Your task to perform on an android device: Open Maps and search for coffee Image 0: 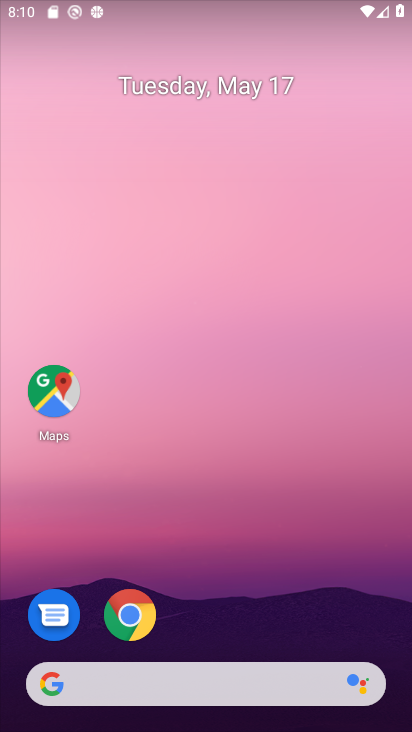
Step 0: click (49, 398)
Your task to perform on an android device: Open Maps and search for coffee Image 1: 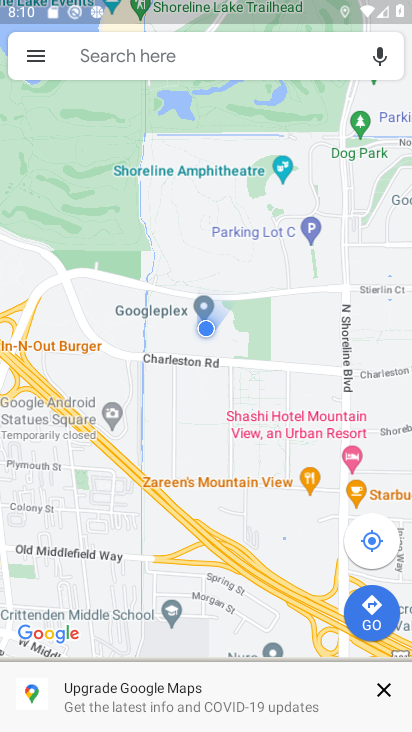
Step 1: click (179, 63)
Your task to perform on an android device: Open Maps and search for coffee Image 2: 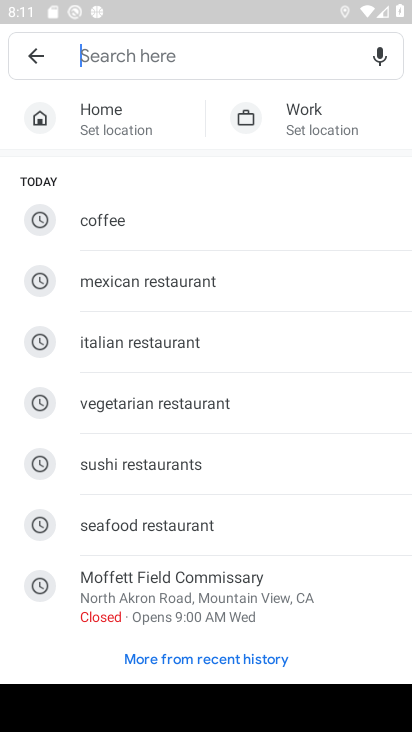
Step 2: click (157, 227)
Your task to perform on an android device: Open Maps and search for coffee Image 3: 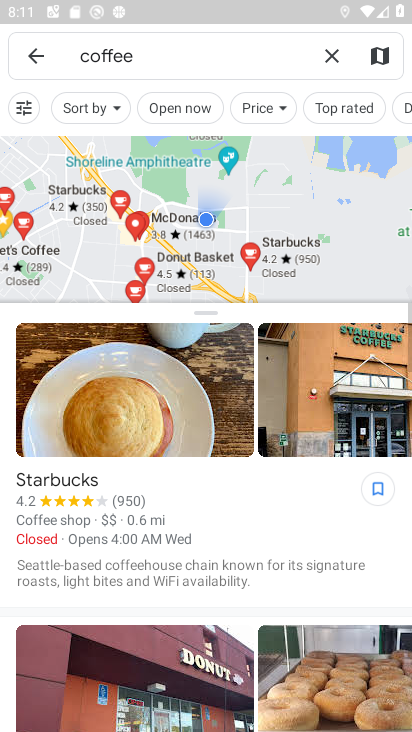
Step 3: task complete